Your task to perform on an android device: When is my next appointment? Image 0: 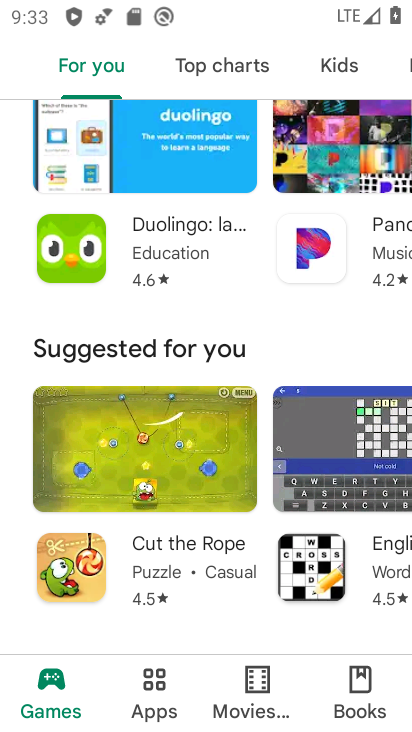
Step 0: press home button
Your task to perform on an android device: When is my next appointment? Image 1: 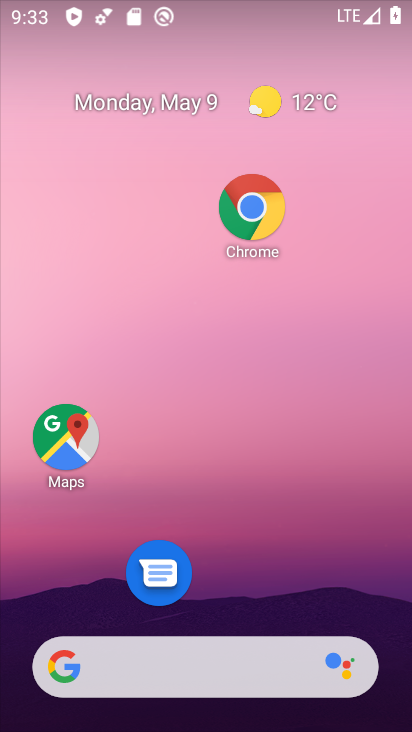
Step 1: drag from (215, 576) to (264, 227)
Your task to perform on an android device: When is my next appointment? Image 2: 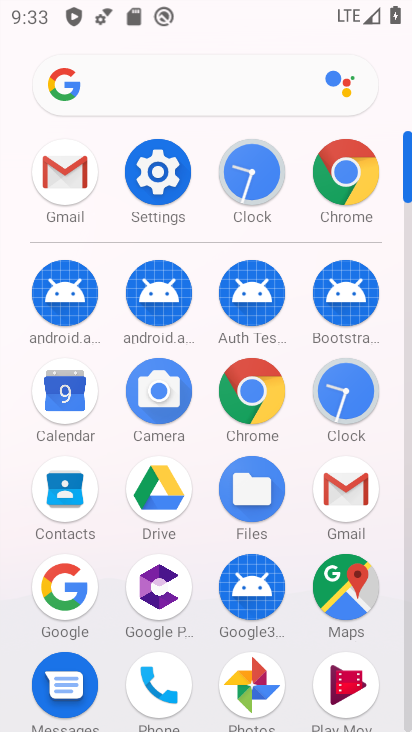
Step 2: click (65, 395)
Your task to perform on an android device: When is my next appointment? Image 3: 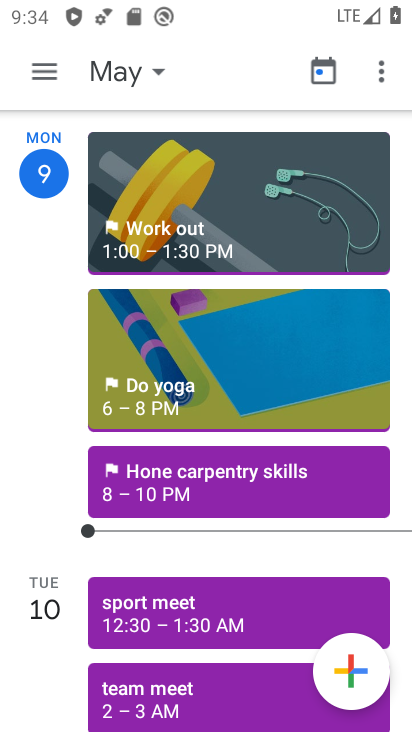
Step 3: task complete